Your task to perform on an android device: add a label to a message in the gmail app Image 0: 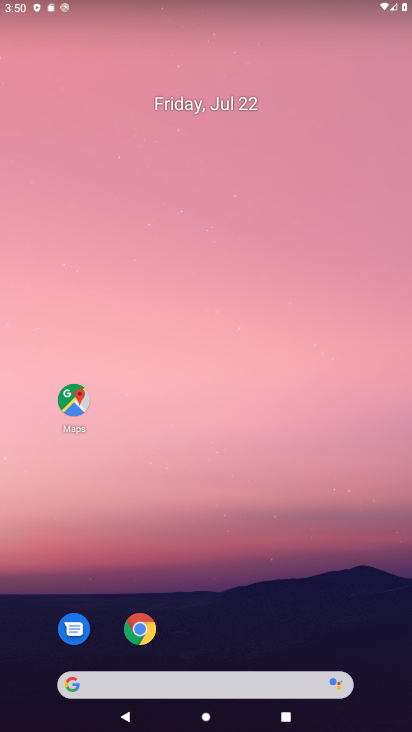
Step 0: drag from (275, 611) to (259, 103)
Your task to perform on an android device: add a label to a message in the gmail app Image 1: 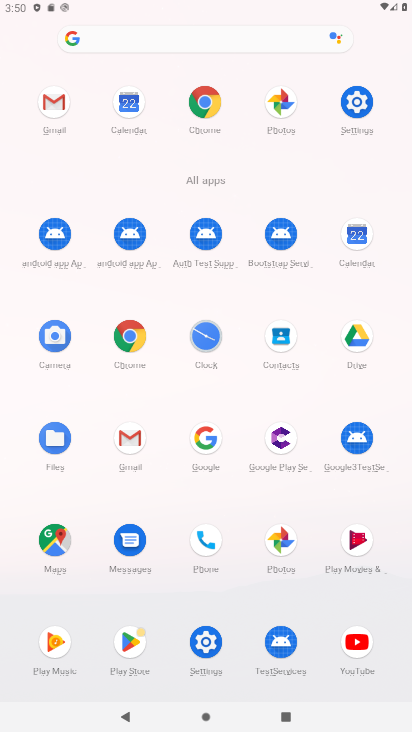
Step 1: click (61, 96)
Your task to perform on an android device: add a label to a message in the gmail app Image 2: 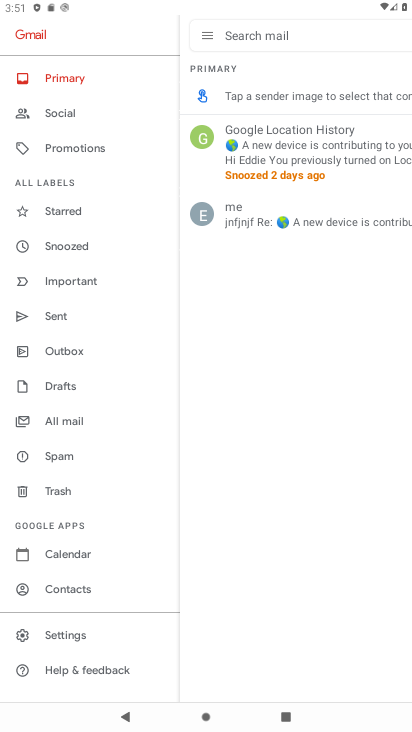
Step 2: click (318, 154)
Your task to perform on an android device: add a label to a message in the gmail app Image 3: 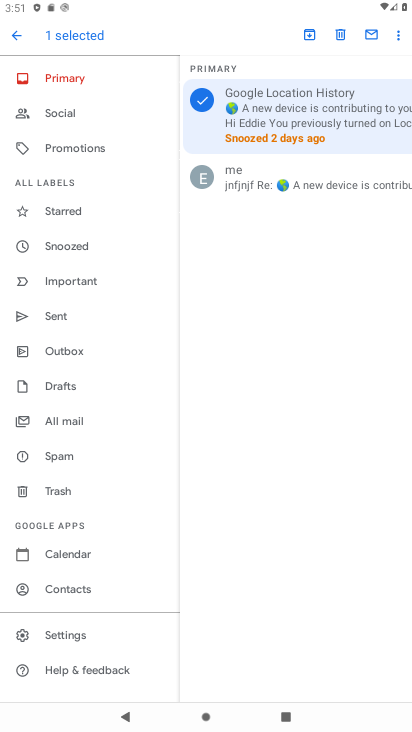
Step 3: click (394, 36)
Your task to perform on an android device: add a label to a message in the gmail app Image 4: 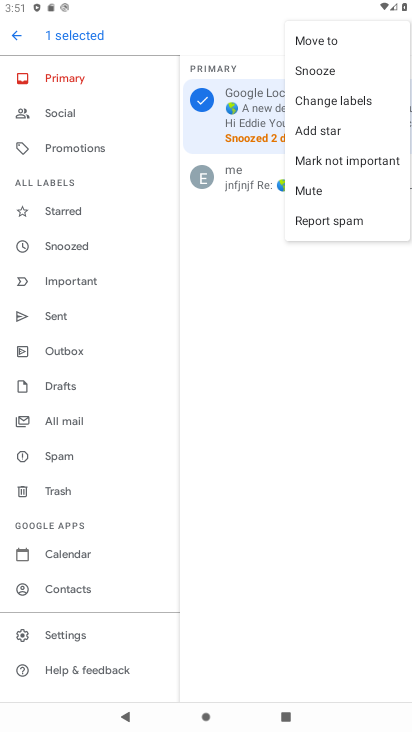
Step 4: task complete